Your task to perform on an android device: Find coffee shops on Maps Image 0: 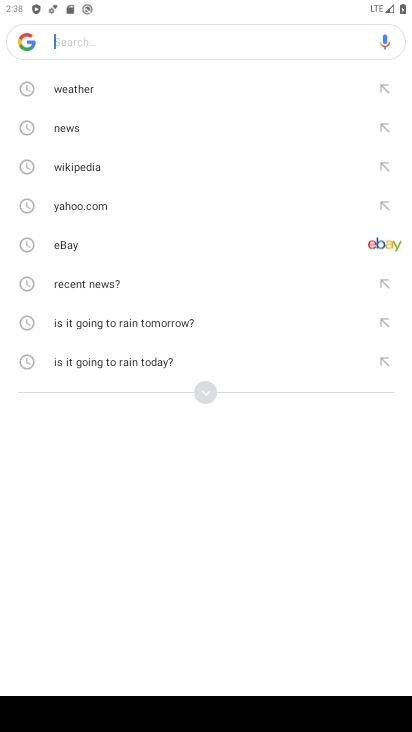
Step 0: press home button
Your task to perform on an android device: Find coffee shops on Maps Image 1: 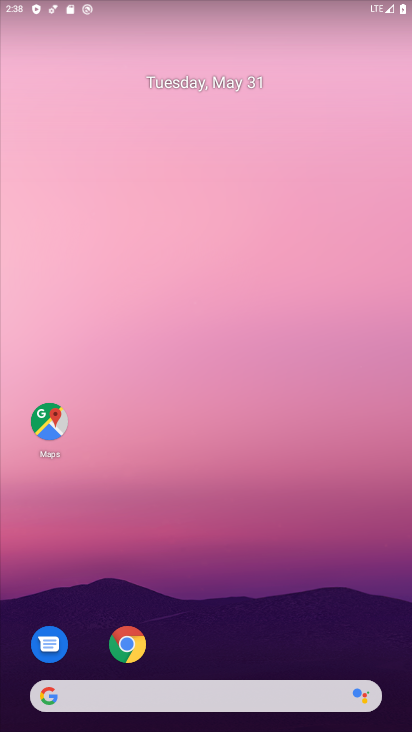
Step 1: click (48, 438)
Your task to perform on an android device: Find coffee shops on Maps Image 2: 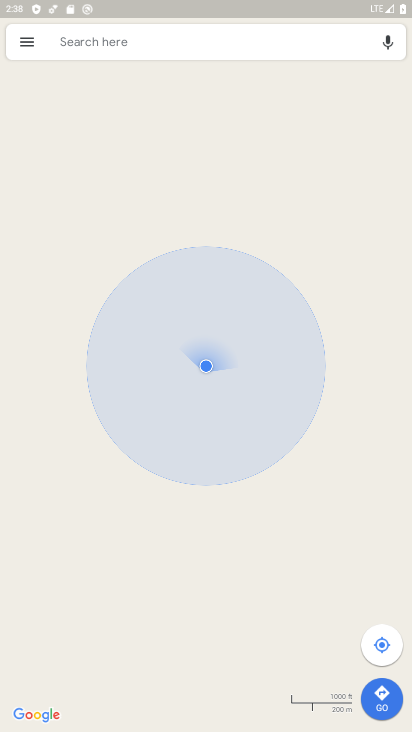
Step 2: click (183, 41)
Your task to perform on an android device: Find coffee shops on Maps Image 3: 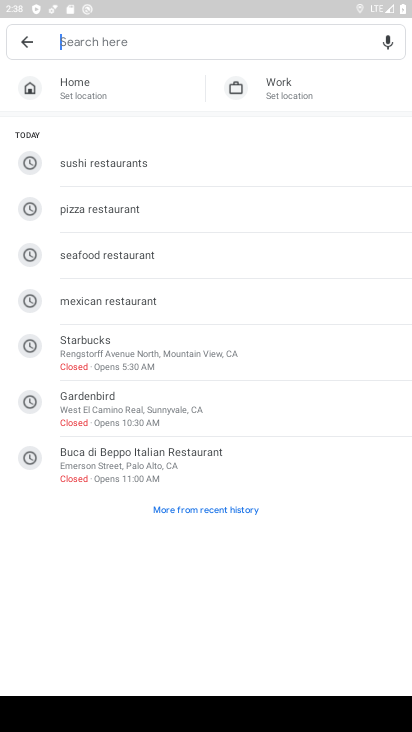
Step 3: type "coffee shops"
Your task to perform on an android device: Find coffee shops on Maps Image 4: 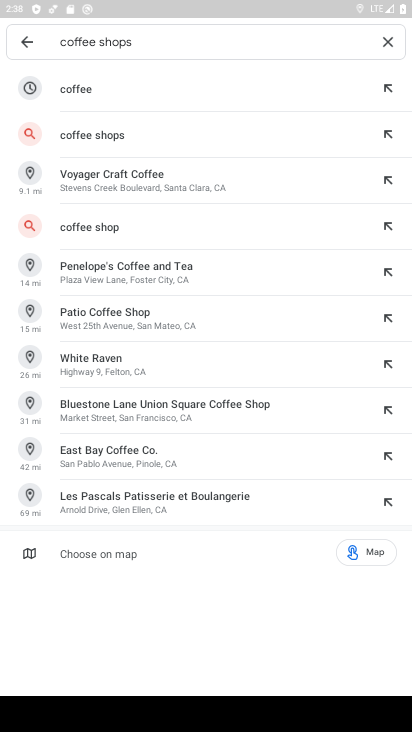
Step 4: click (295, 129)
Your task to perform on an android device: Find coffee shops on Maps Image 5: 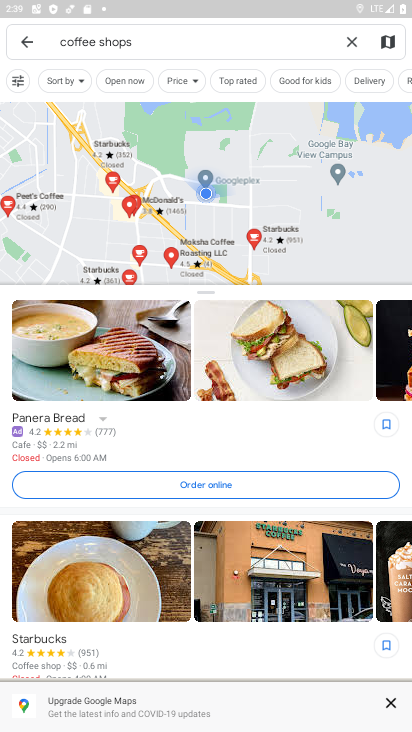
Step 5: task complete